Your task to perform on an android device: install app "Grab" Image 0: 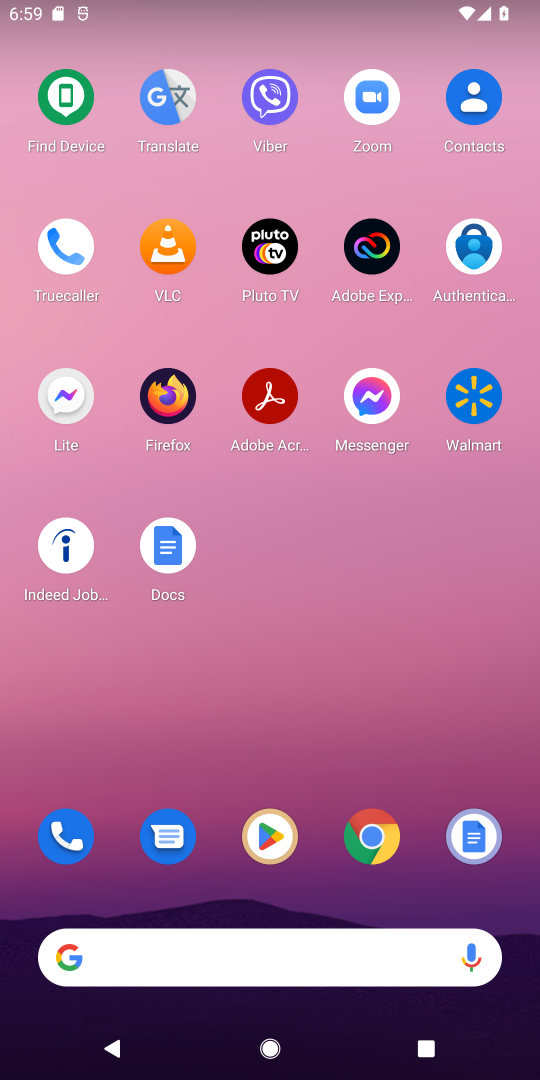
Step 0: press home button
Your task to perform on an android device: install app "Grab" Image 1: 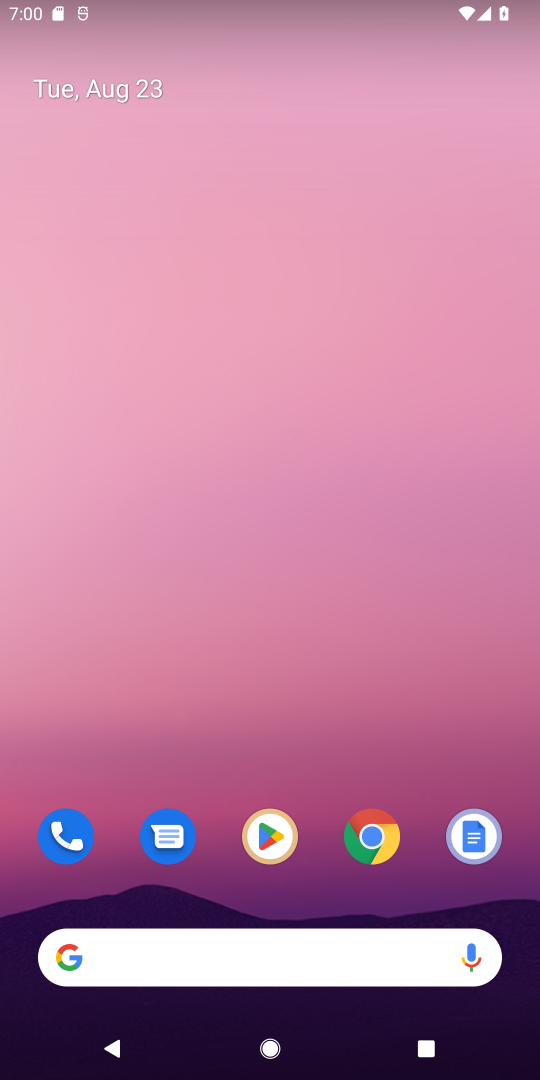
Step 1: click (264, 829)
Your task to perform on an android device: install app "Grab" Image 2: 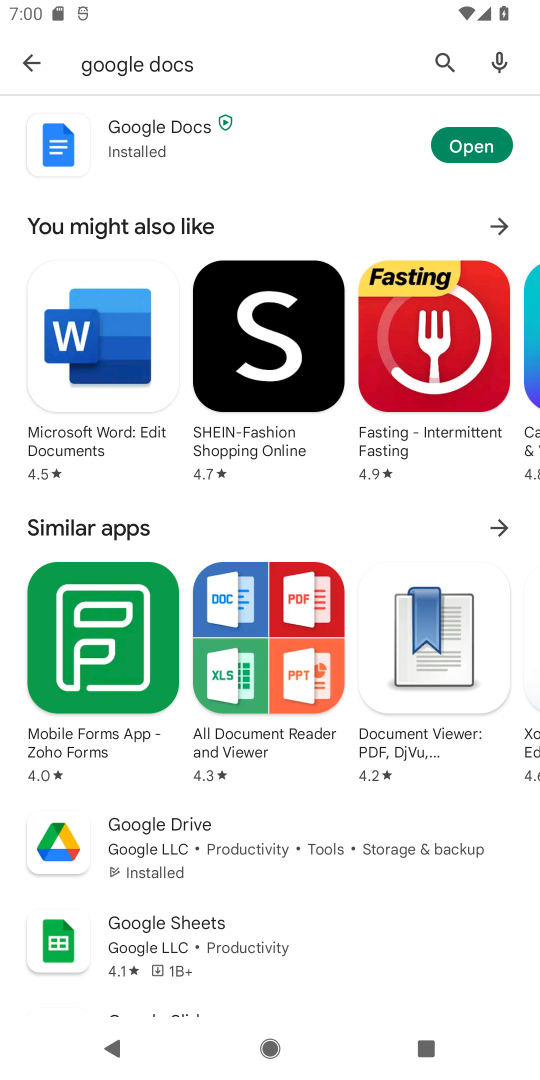
Step 2: click (450, 55)
Your task to perform on an android device: install app "Grab" Image 3: 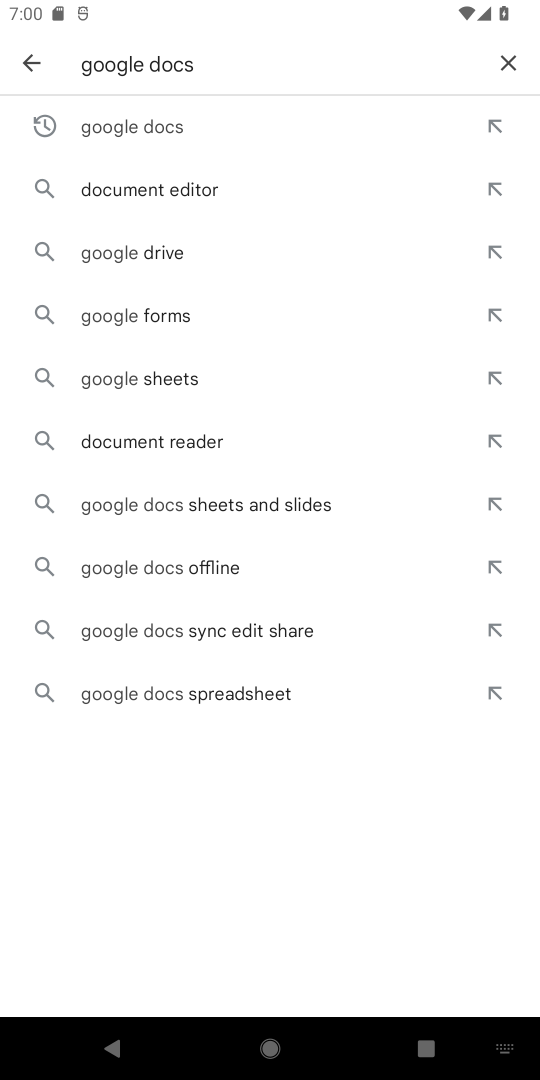
Step 3: click (511, 58)
Your task to perform on an android device: install app "Grab" Image 4: 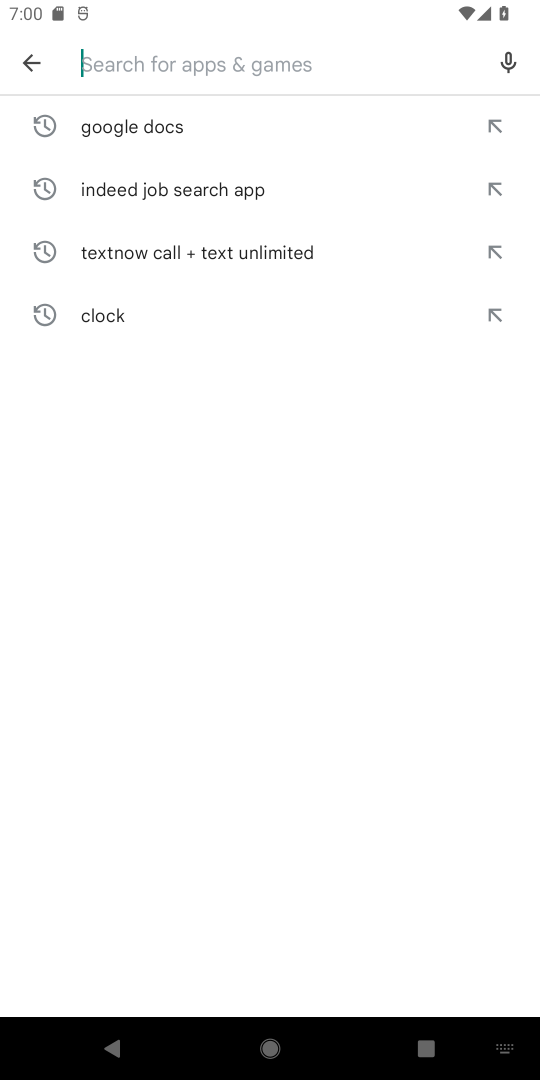
Step 4: type "Grab"
Your task to perform on an android device: install app "Grab" Image 5: 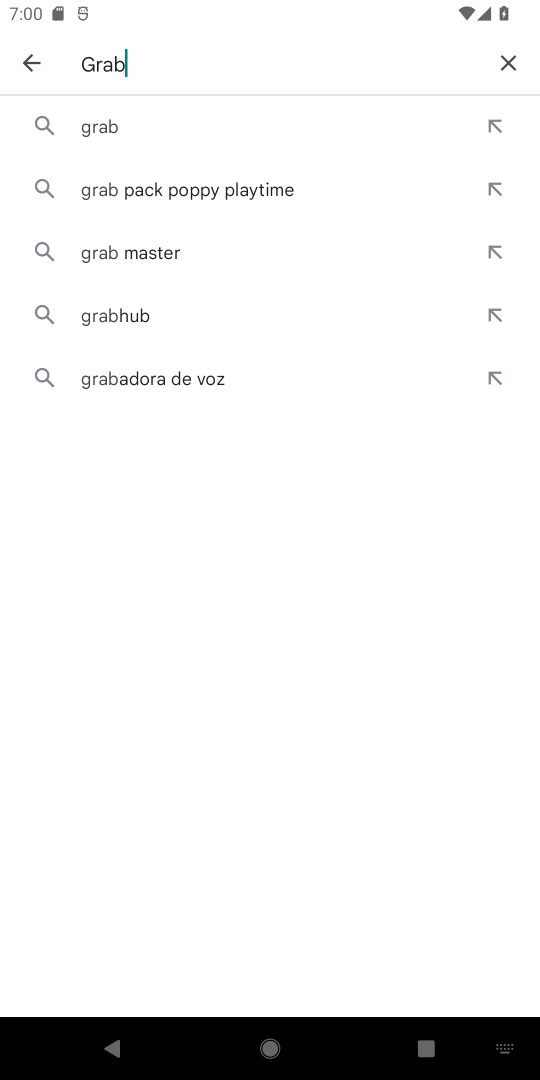
Step 5: click (69, 136)
Your task to perform on an android device: install app "Grab" Image 6: 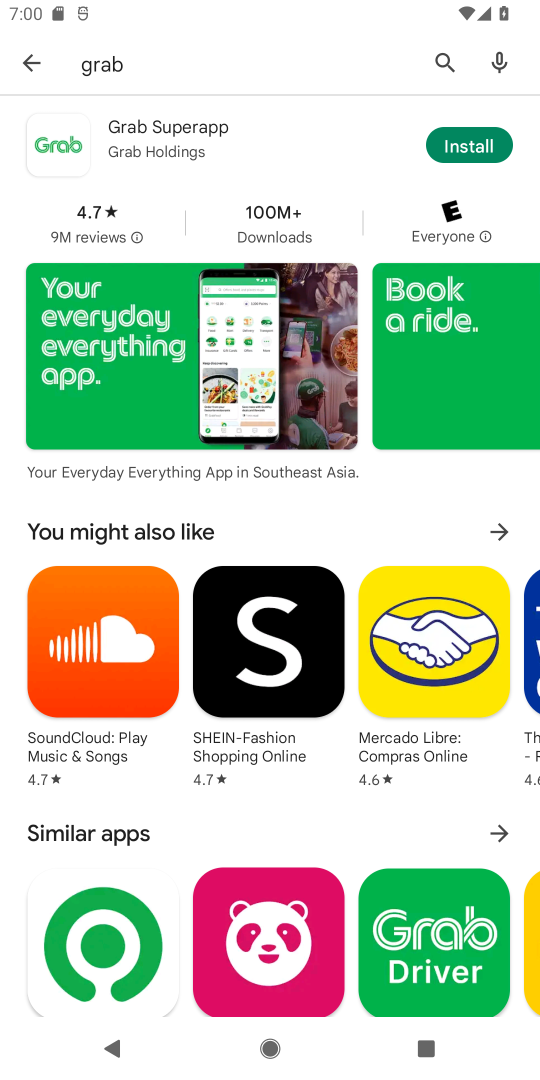
Step 6: click (464, 138)
Your task to perform on an android device: install app "Grab" Image 7: 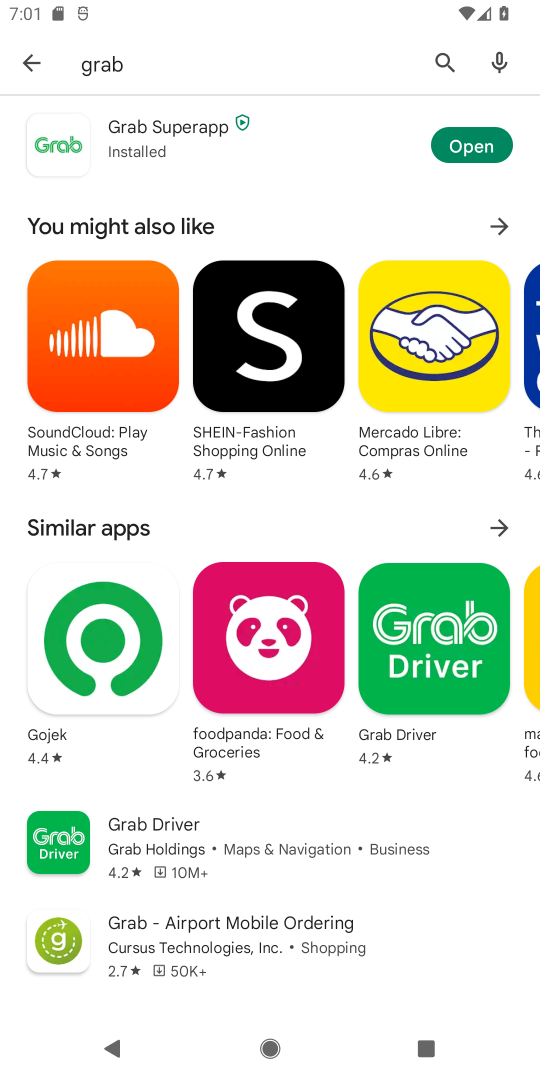
Step 7: task complete